Your task to perform on an android device: Clear all items from cart on costco.com. Search for "acer nitro" on costco.com, select the first entry, add it to the cart, then select checkout. Image 0: 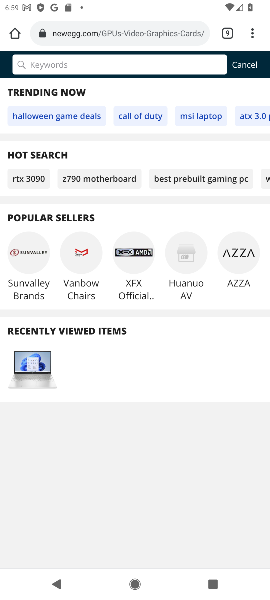
Step 0: press home button
Your task to perform on an android device: Clear all items from cart on costco.com. Search for "acer nitro" on costco.com, select the first entry, add it to the cart, then select checkout. Image 1: 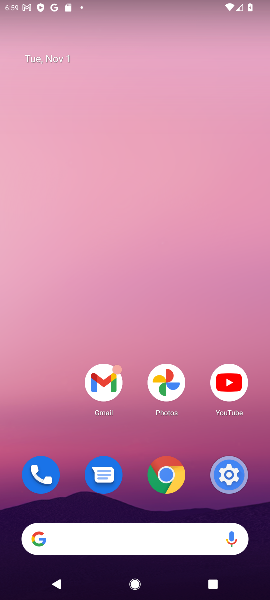
Step 1: click (159, 533)
Your task to perform on an android device: Clear all items from cart on costco.com. Search for "acer nitro" on costco.com, select the first entry, add it to the cart, then select checkout. Image 2: 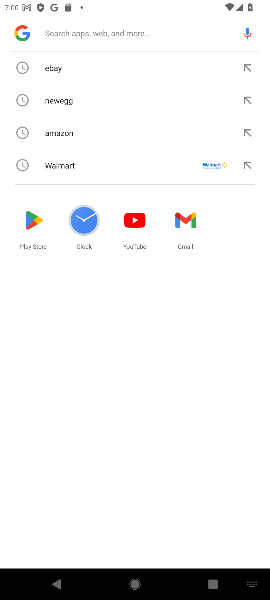
Step 2: type "acer nitro""
Your task to perform on an android device: Clear all items from cart on costco.com. Search for "acer nitro" on costco.com, select the first entry, add it to the cart, then select checkout. Image 3: 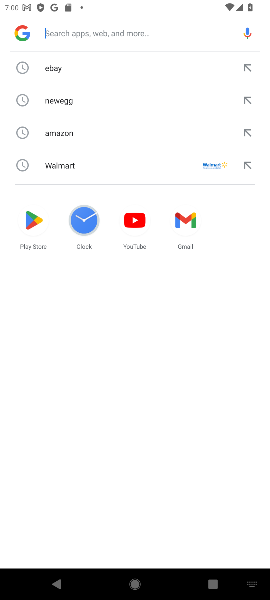
Step 3: type " costco.com"
Your task to perform on an android device: Clear all items from cart on costco.com. Search for "acer nitro" on costco.com, select the first entry, add it to the cart, then select checkout. Image 4: 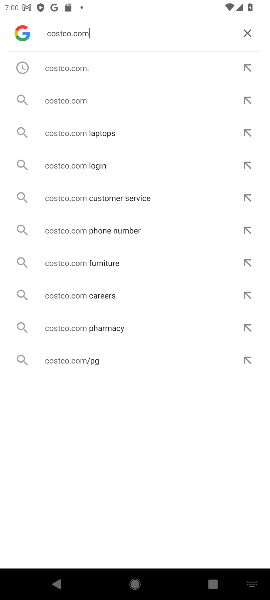
Step 4: click (96, 66)
Your task to perform on an android device: Clear all items from cart on costco.com. Search for "acer nitro" on costco.com, select the first entry, add it to the cart, then select checkout. Image 5: 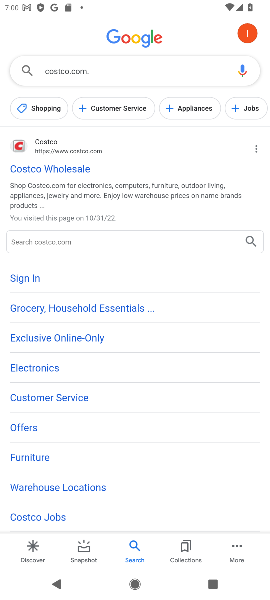
Step 5: click (38, 167)
Your task to perform on an android device: Clear all items from cart on costco.com. Search for "acer nitro" on costco.com, select the first entry, add it to the cart, then select checkout. Image 6: 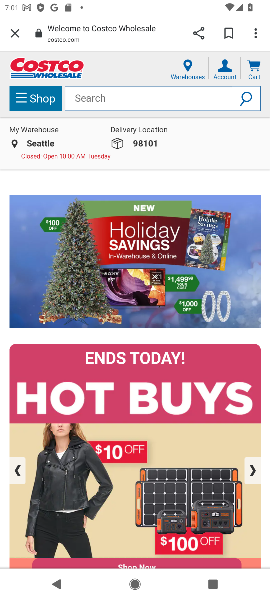
Step 6: click (158, 96)
Your task to perform on an android device: Clear all items from cart on costco.com. Search for "acer nitro" on costco.com, select the first entry, add it to the cart, then select checkout. Image 7: 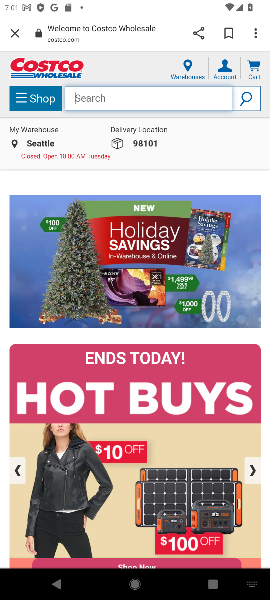
Step 7: type "acer nitro""
Your task to perform on an android device: Clear all items from cart on costco.com. Search for "acer nitro" on costco.com, select the first entry, add it to the cart, then select checkout. Image 8: 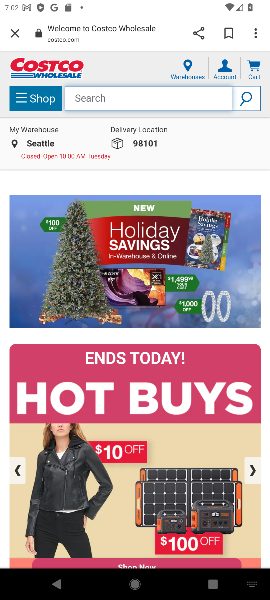
Step 8: click (134, 93)
Your task to perform on an android device: Clear all items from cart on costco.com. Search for "acer nitro" on costco.com, select the first entry, add it to the cart, then select checkout. Image 9: 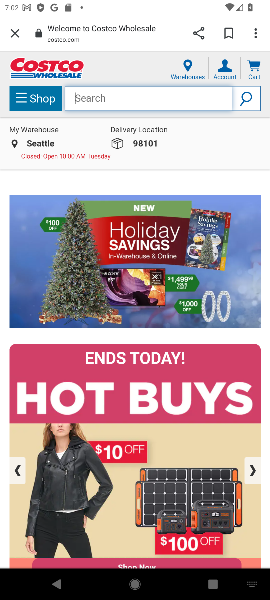
Step 9: type "acer nitro"
Your task to perform on an android device: Clear all items from cart on costco.com. Search for "acer nitro" on costco.com, select the first entry, add it to the cart, then select checkout. Image 10: 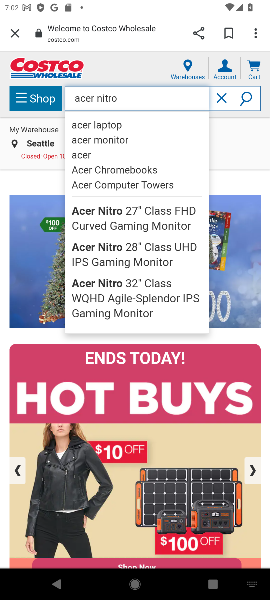
Step 10: click (116, 123)
Your task to perform on an android device: Clear all items from cart on costco.com. Search for "acer nitro" on costco.com, select the first entry, add it to the cart, then select checkout. Image 11: 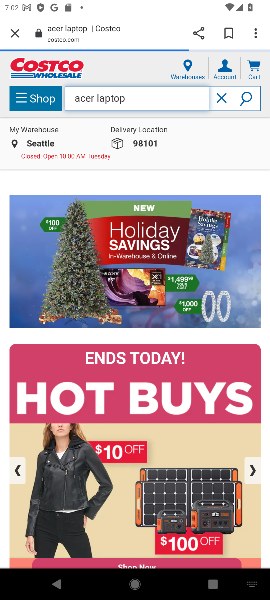
Step 11: click (116, 123)
Your task to perform on an android device: Clear all items from cart on costco.com. Search for "acer nitro" on costco.com, select the first entry, add it to the cart, then select checkout. Image 12: 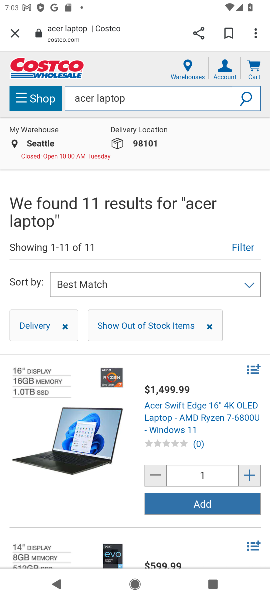
Step 12: click (202, 496)
Your task to perform on an android device: Clear all items from cart on costco.com. Search for "acer nitro" on costco.com, select the first entry, add it to the cart, then select checkout. Image 13: 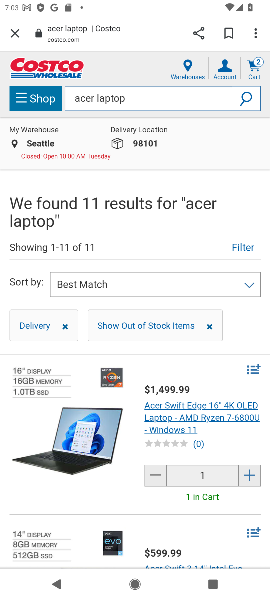
Step 13: task complete